Your task to perform on an android device: snooze an email in the gmail app Image 0: 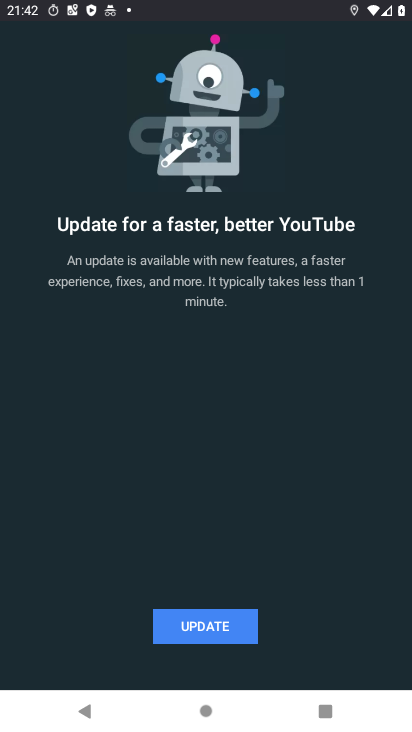
Step 0: press back button
Your task to perform on an android device: snooze an email in the gmail app Image 1: 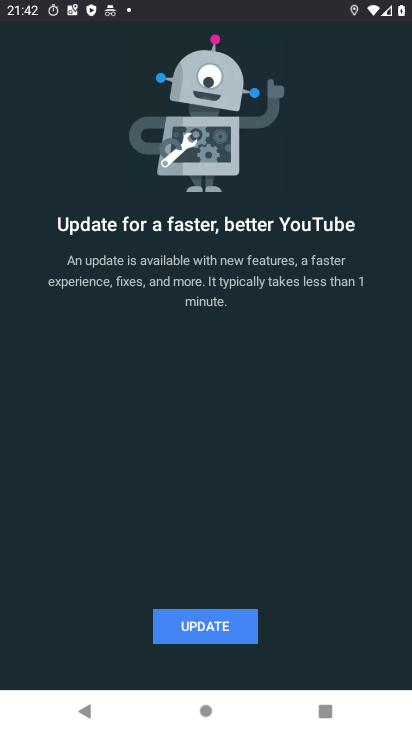
Step 1: press back button
Your task to perform on an android device: snooze an email in the gmail app Image 2: 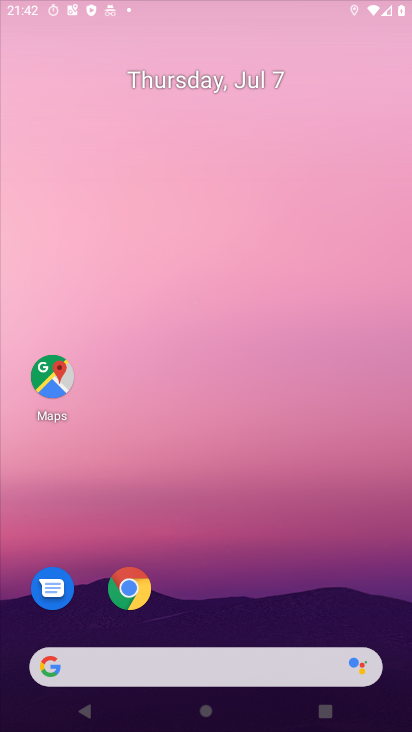
Step 2: press back button
Your task to perform on an android device: snooze an email in the gmail app Image 3: 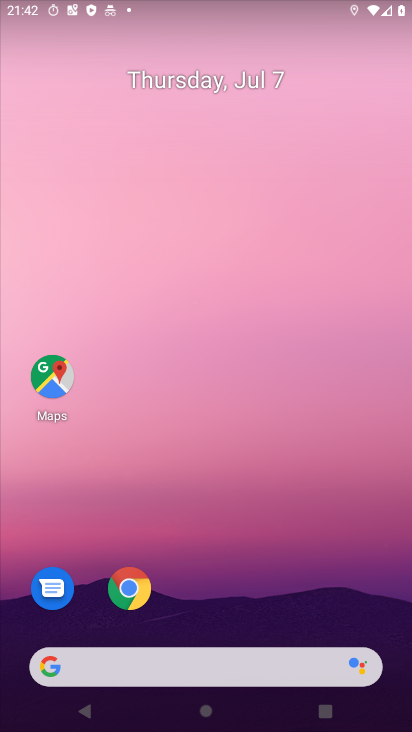
Step 3: press home button
Your task to perform on an android device: snooze an email in the gmail app Image 4: 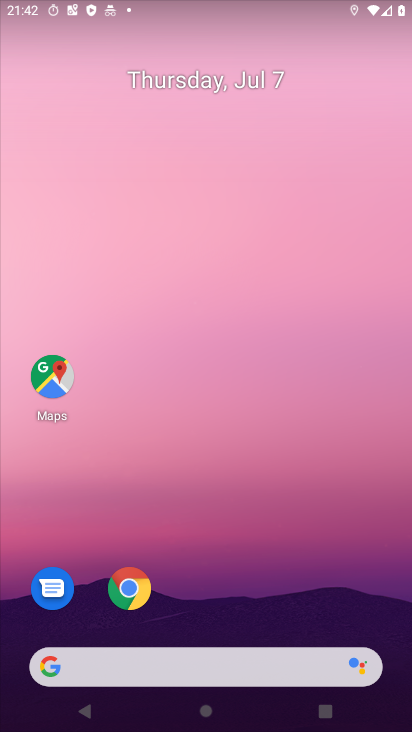
Step 4: press home button
Your task to perform on an android device: snooze an email in the gmail app Image 5: 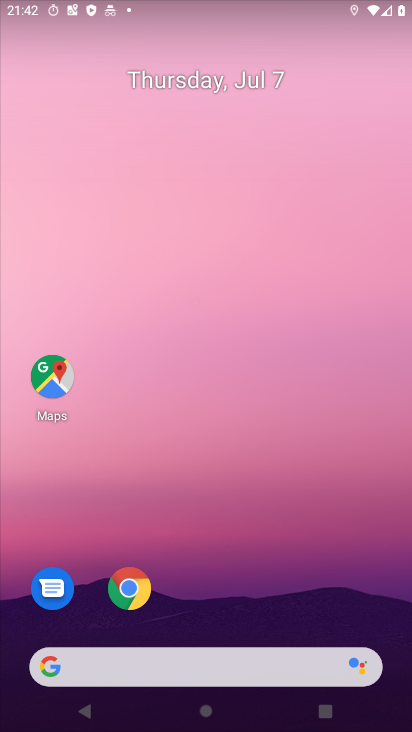
Step 5: click (215, 129)
Your task to perform on an android device: snooze an email in the gmail app Image 6: 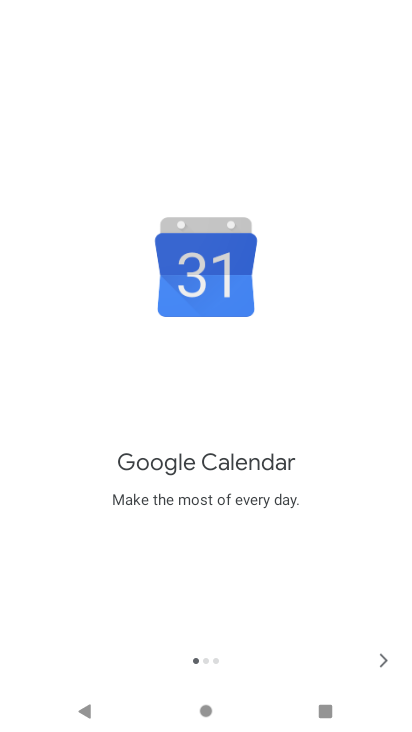
Step 6: click (375, 653)
Your task to perform on an android device: snooze an email in the gmail app Image 7: 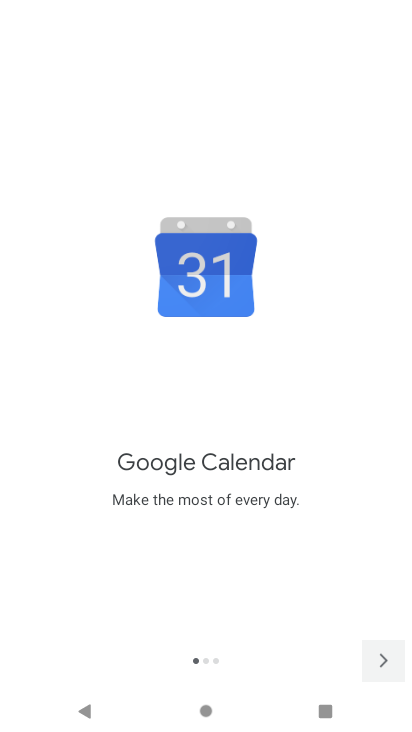
Step 7: click (377, 652)
Your task to perform on an android device: snooze an email in the gmail app Image 8: 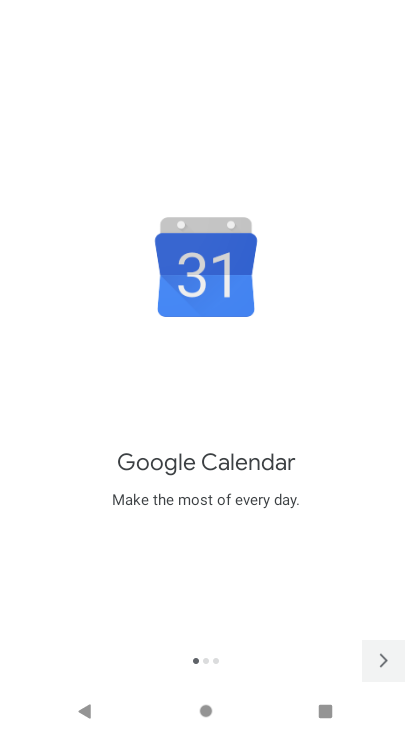
Step 8: click (378, 651)
Your task to perform on an android device: snooze an email in the gmail app Image 9: 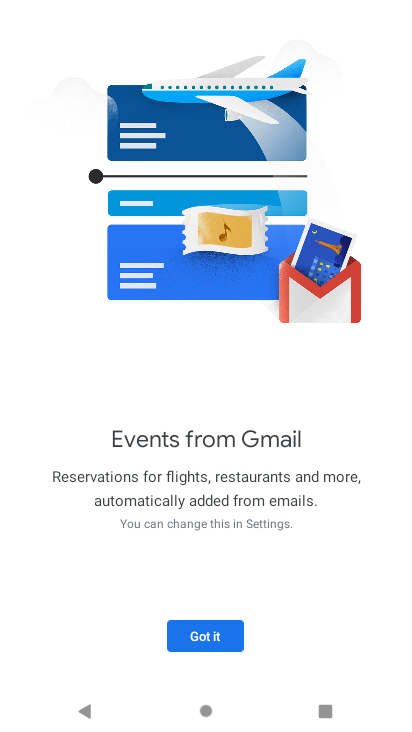
Step 9: click (224, 638)
Your task to perform on an android device: snooze an email in the gmail app Image 10: 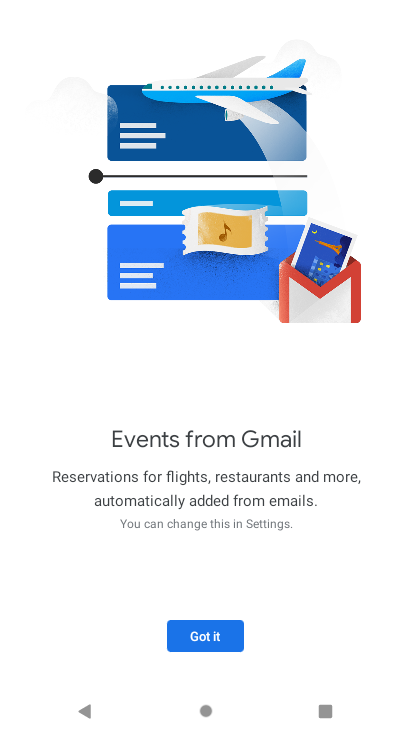
Step 10: click (223, 637)
Your task to perform on an android device: snooze an email in the gmail app Image 11: 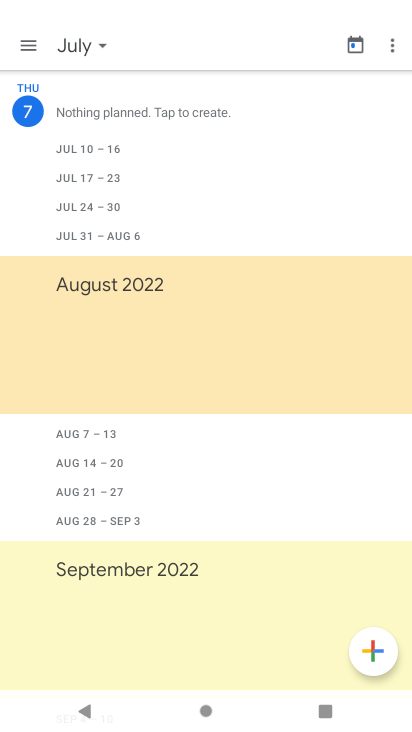
Step 11: drag from (125, 211) to (120, 522)
Your task to perform on an android device: snooze an email in the gmail app Image 12: 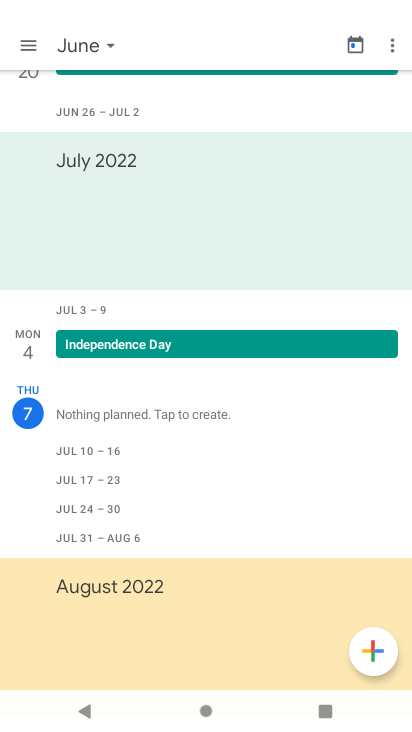
Step 12: drag from (116, 393) to (102, 640)
Your task to perform on an android device: snooze an email in the gmail app Image 13: 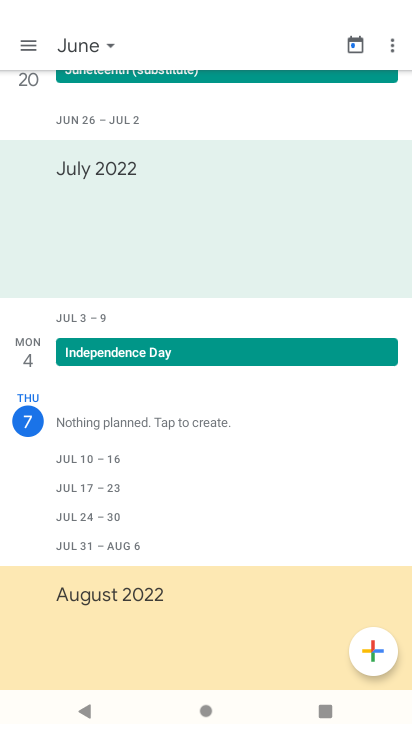
Step 13: press back button
Your task to perform on an android device: snooze an email in the gmail app Image 14: 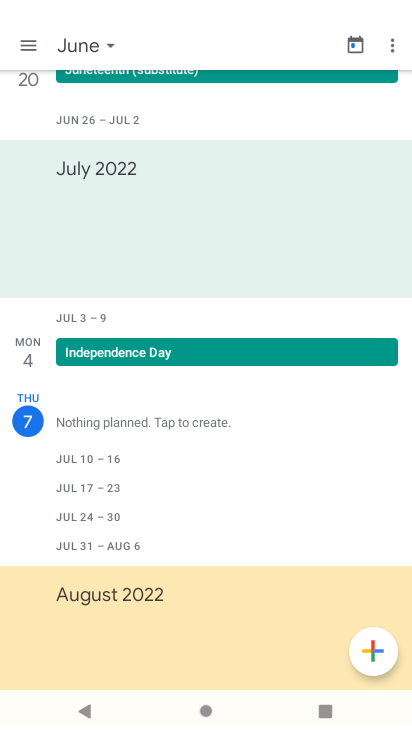
Step 14: press back button
Your task to perform on an android device: snooze an email in the gmail app Image 15: 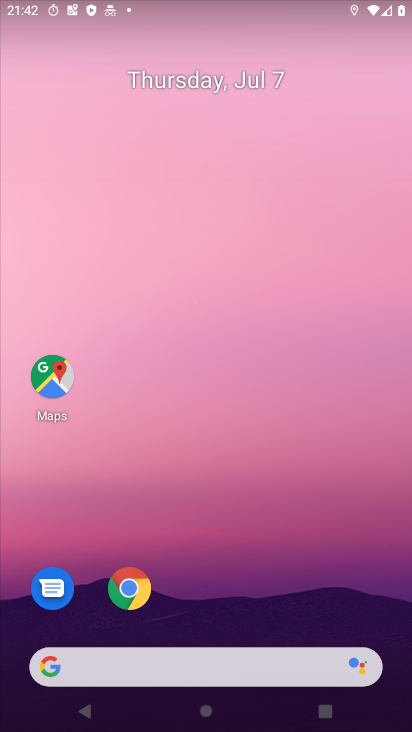
Step 15: drag from (236, 614) to (105, 114)
Your task to perform on an android device: snooze an email in the gmail app Image 16: 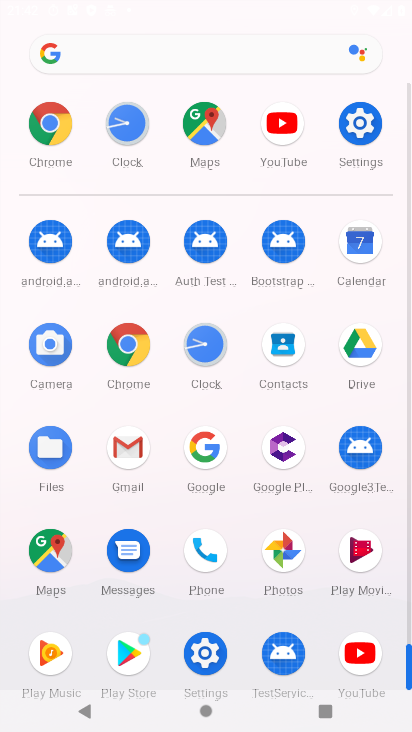
Step 16: click (106, 448)
Your task to perform on an android device: snooze an email in the gmail app Image 17: 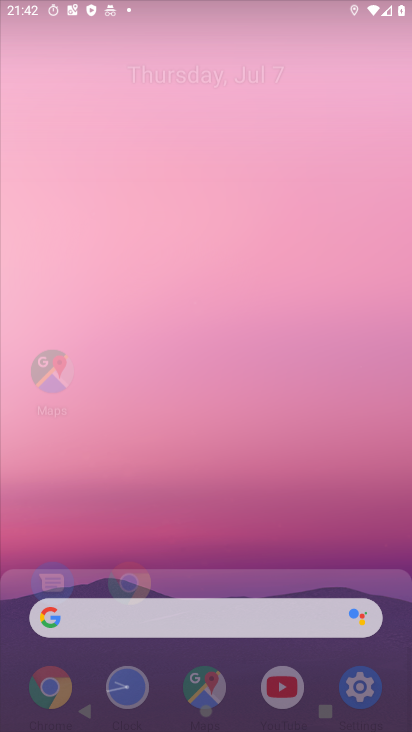
Step 17: click (127, 440)
Your task to perform on an android device: snooze an email in the gmail app Image 18: 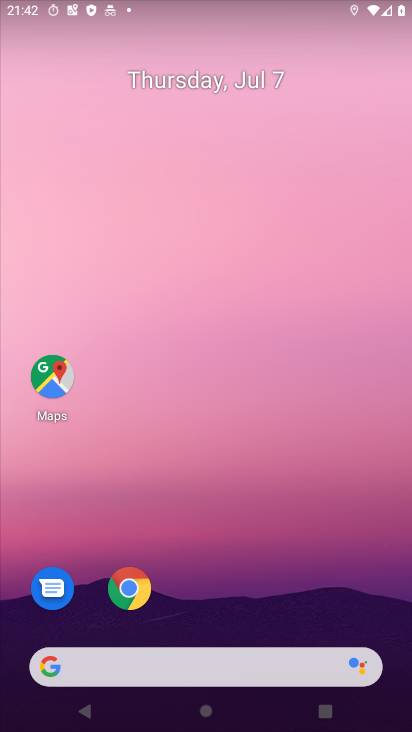
Step 18: click (127, 440)
Your task to perform on an android device: snooze an email in the gmail app Image 19: 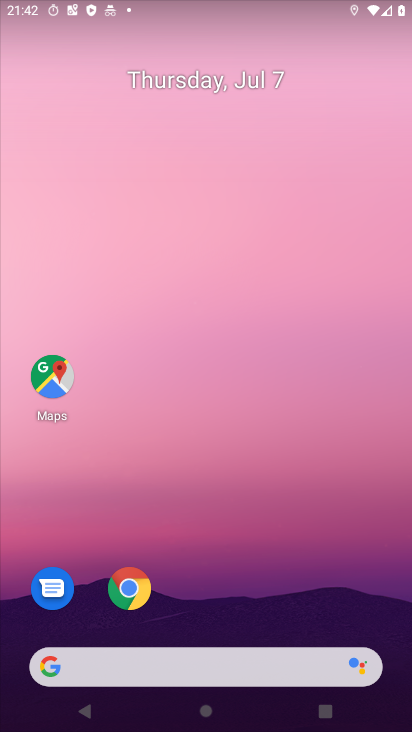
Step 19: drag from (253, 569) to (232, 171)
Your task to perform on an android device: snooze an email in the gmail app Image 20: 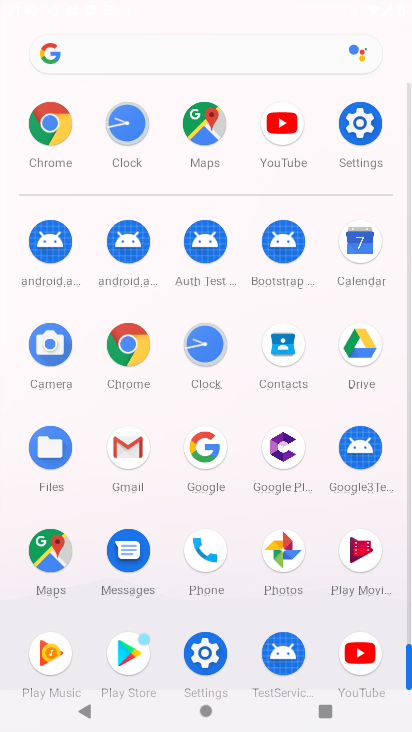
Step 20: click (127, 451)
Your task to perform on an android device: snooze an email in the gmail app Image 21: 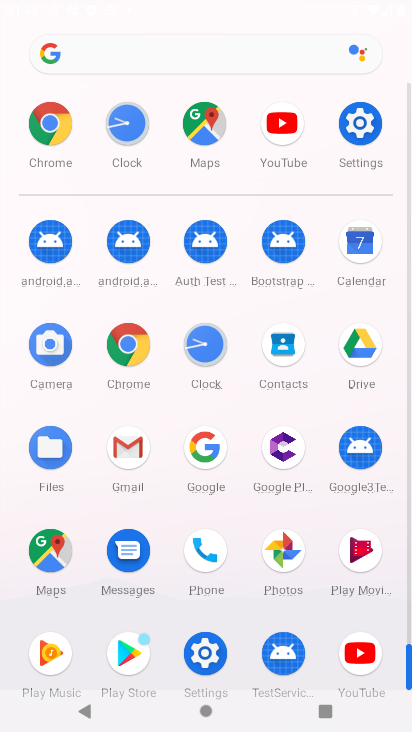
Step 21: click (123, 448)
Your task to perform on an android device: snooze an email in the gmail app Image 22: 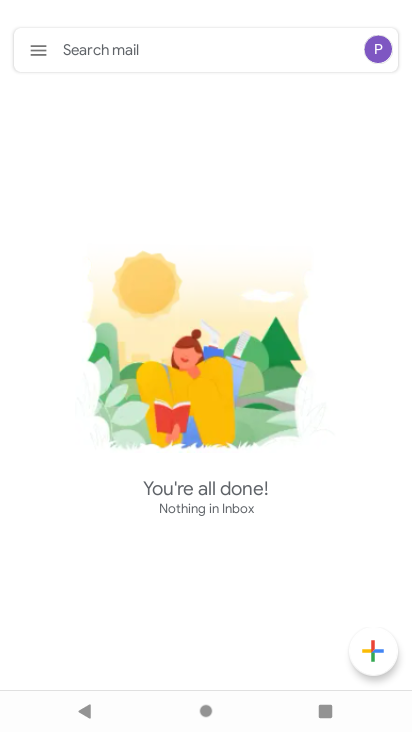
Step 22: click (31, 49)
Your task to perform on an android device: snooze an email in the gmail app Image 23: 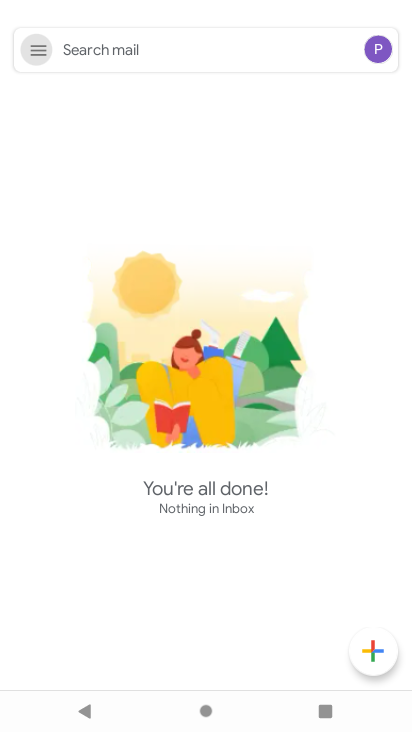
Step 23: click (31, 49)
Your task to perform on an android device: snooze an email in the gmail app Image 24: 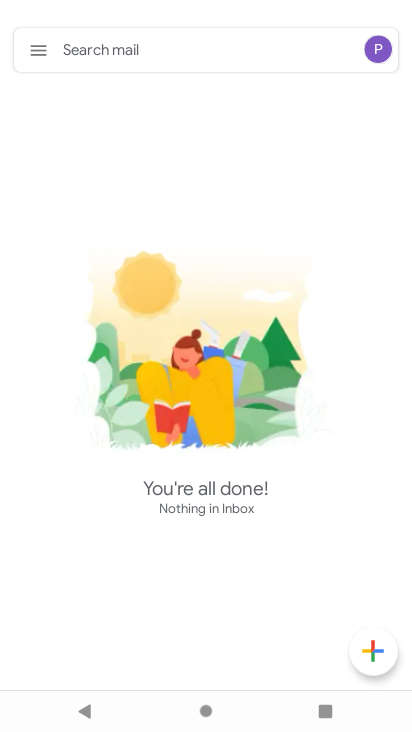
Step 24: click (31, 49)
Your task to perform on an android device: snooze an email in the gmail app Image 25: 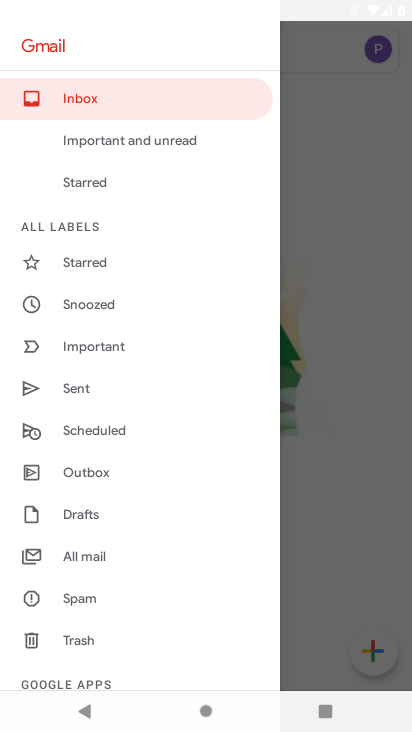
Step 25: drag from (107, 598) to (74, 235)
Your task to perform on an android device: snooze an email in the gmail app Image 26: 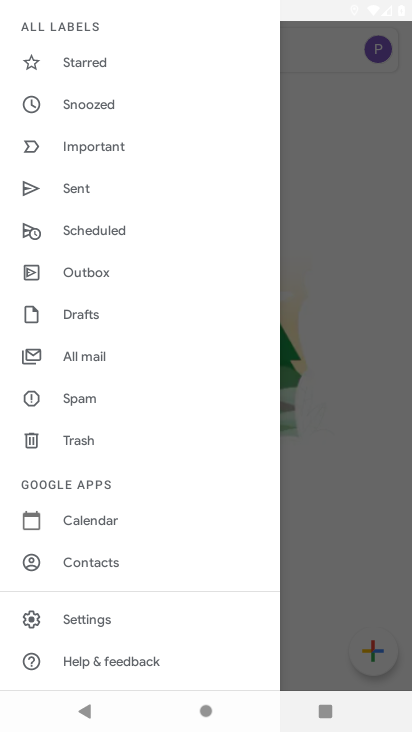
Step 26: click (71, 352)
Your task to perform on an android device: snooze an email in the gmail app Image 27: 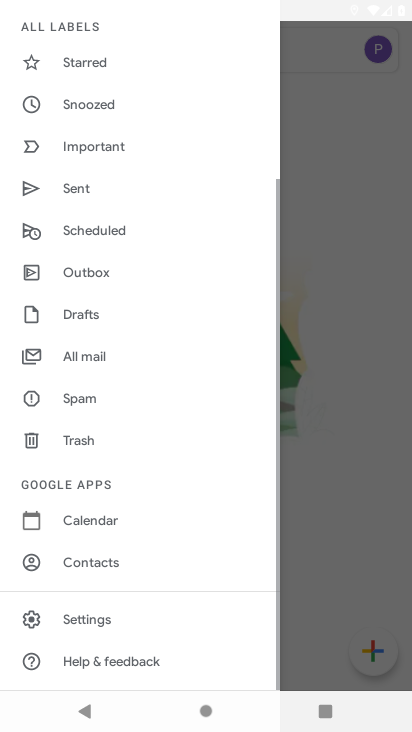
Step 27: click (71, 352)
Your task to perform on an android device: snooze an email in the gmail app Image 28: 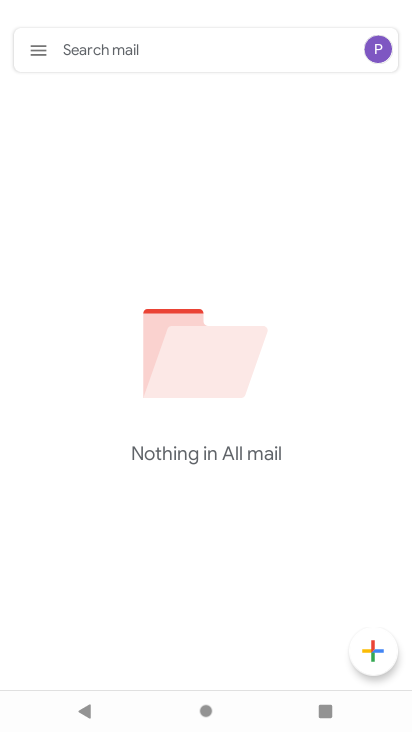
Step 28: task complete